Your task to perform on an android device: change text size in settings app Image 0: 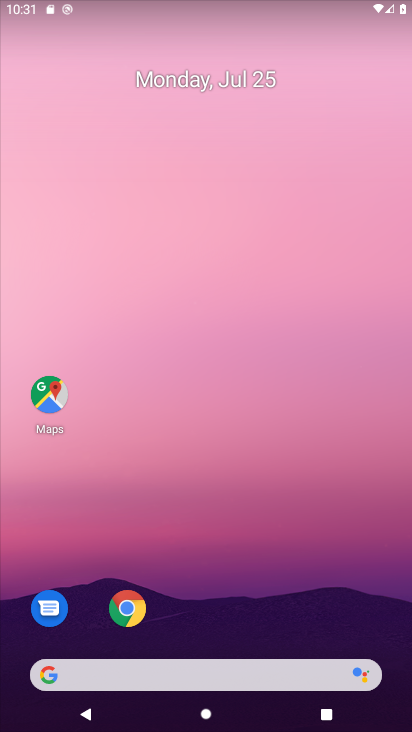
Step 0: drag from (289, 604) to (246, 217)
Your task to perform on an android device: change text size in settings app Image 1: 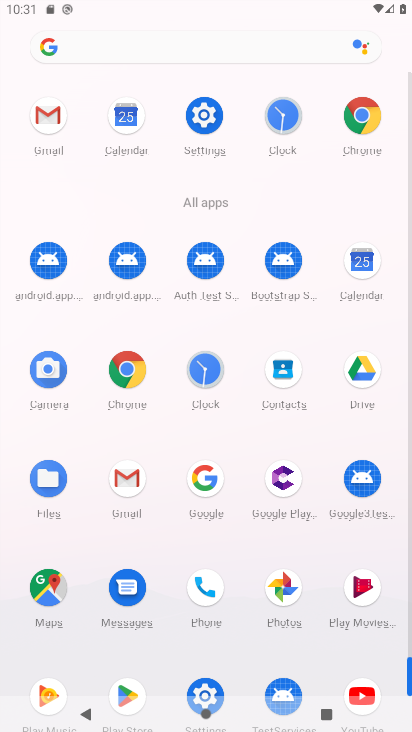
Step 1: click (199, 124)
Your task to perform on an android device: change text size in settings app Image 2: 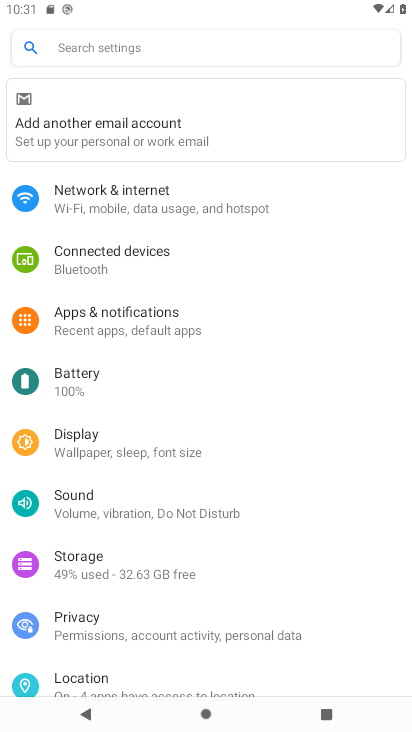
Step 2: drag from (156, 646) to (186, 131)
Your task to perform on an android device: change text size in settings app Image 3: 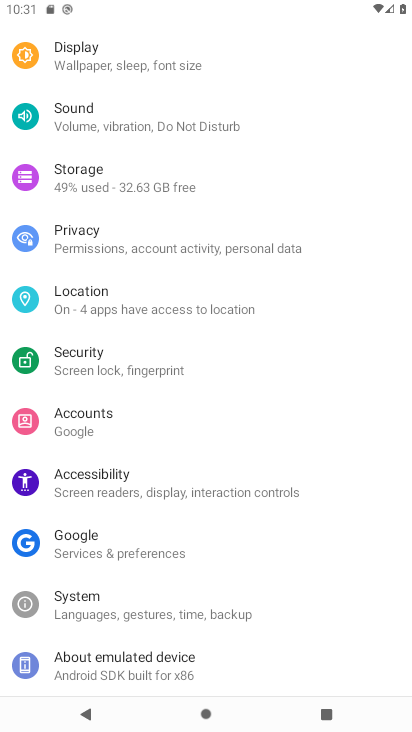
Step 3: click (131, 469)
Your task to perform on an android device: change text size in settings app Image 4: 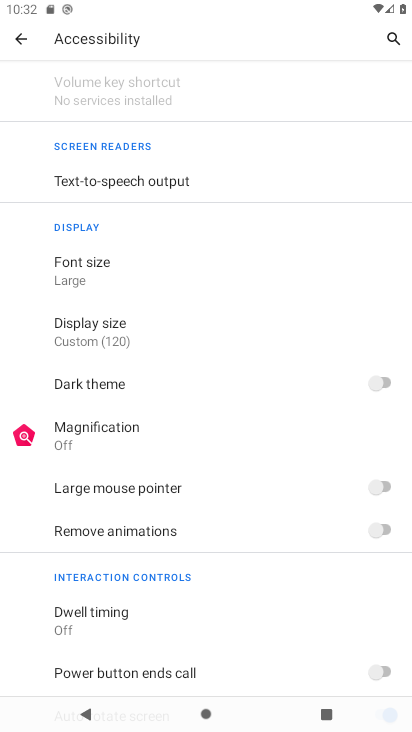
Step 4: click (112, 259)
Your task to perform on an android device: change text size in settings app Image 5: 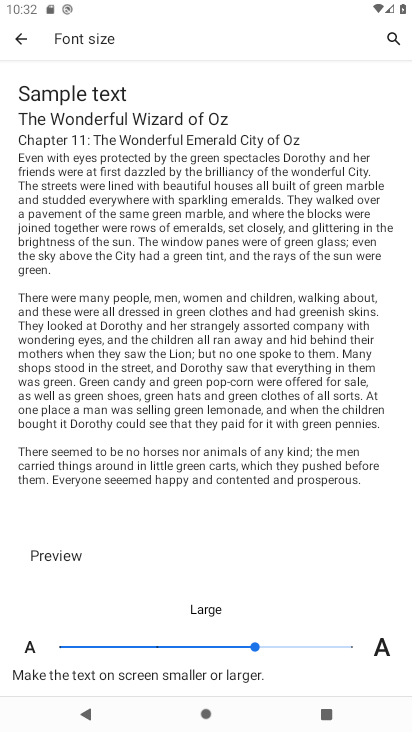
Step 5: click (339, 638)
Your task to perform on an android device: change text size in settings app Image 6: 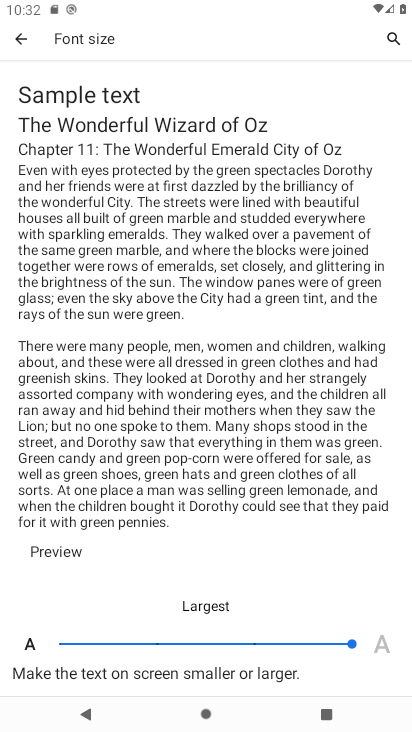
Step 6: task complete